Your task to perform on an android device: delete the emails in spam in the gmail app Image 0: 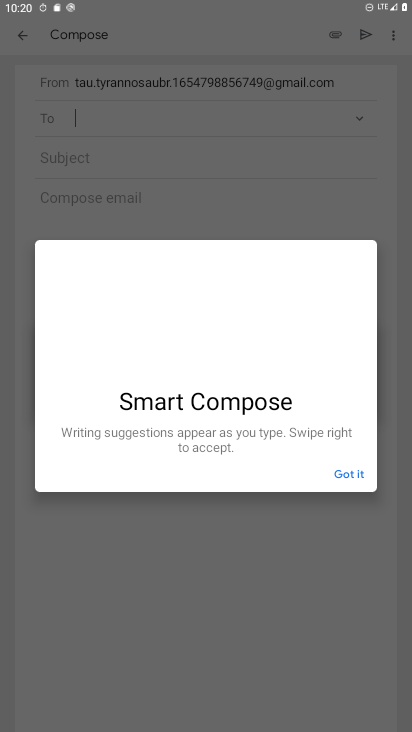
Step 0: press home button
Your task to perform on an android device: delete the emails in spam in the gmail app Image 1: 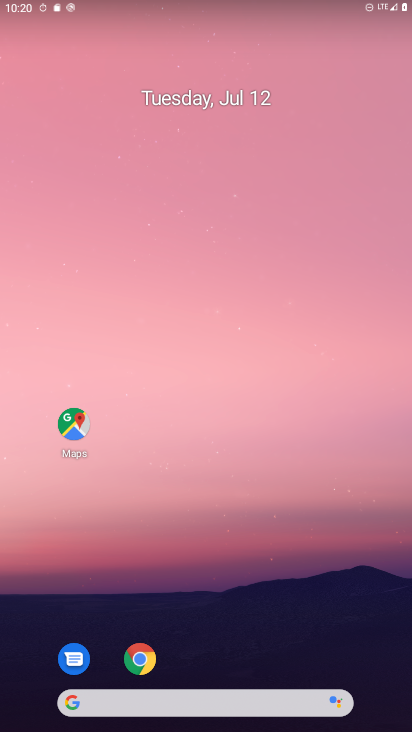
Step 1: drag from (387, 693) to (330, 60)
Your task to perform on an android device: delete the emails in spam in the gmail app Image 2: 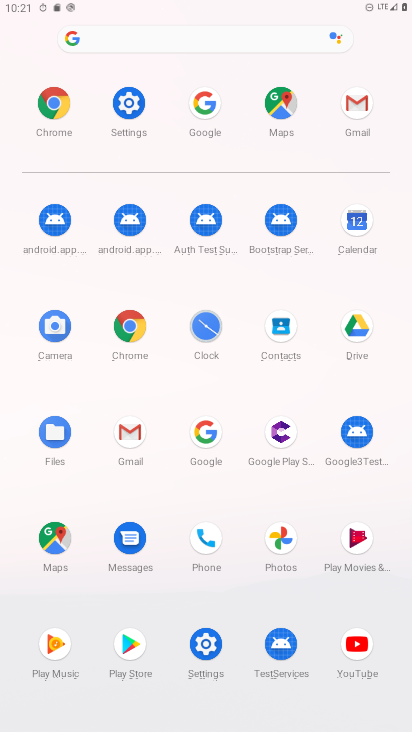
Step 2: click (139, 429)
Your task to perform on an android device: delete the emails in spam in the gmail app Image 3: 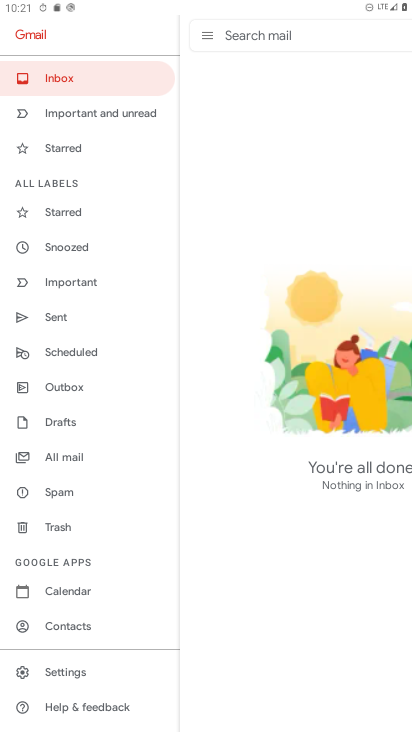
Step 3: task complete